Your task to perform on an android device: Open the stopwatch Image 0: 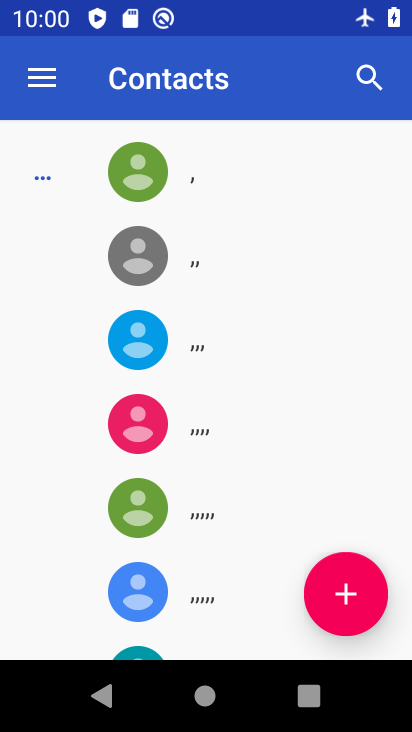
Step 0: press home button
Your task to perform on an android device: Open the stopwatch Image 1: 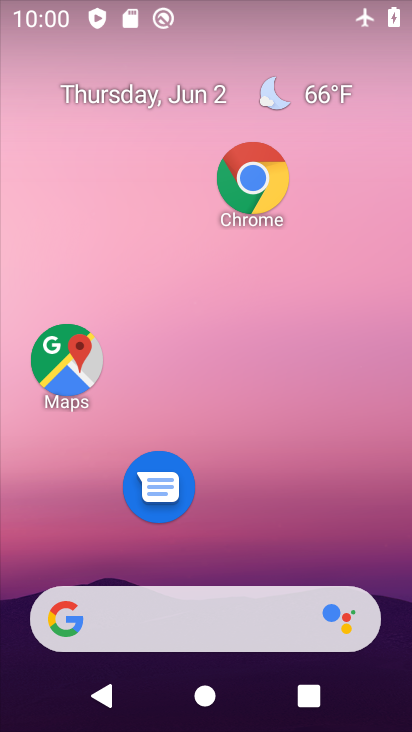
Step 1: drag from (235, 723) to (188, 93)
Your task to perform on an android device: Open the stopwatch Image 2: 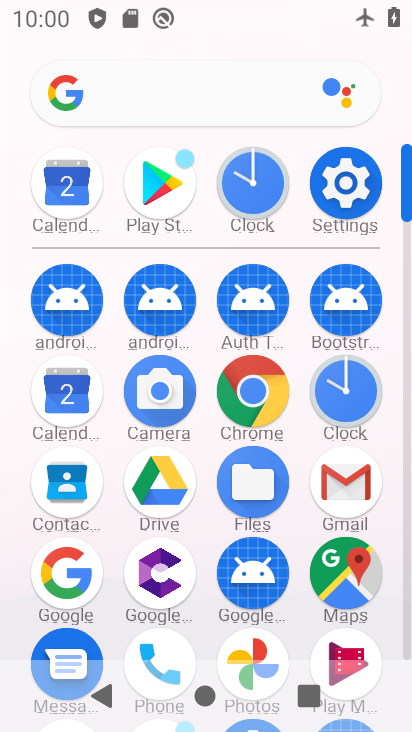
Step 2: click (346, 395)
Your task to perform on an android device: Open the stopwatch Image 3: 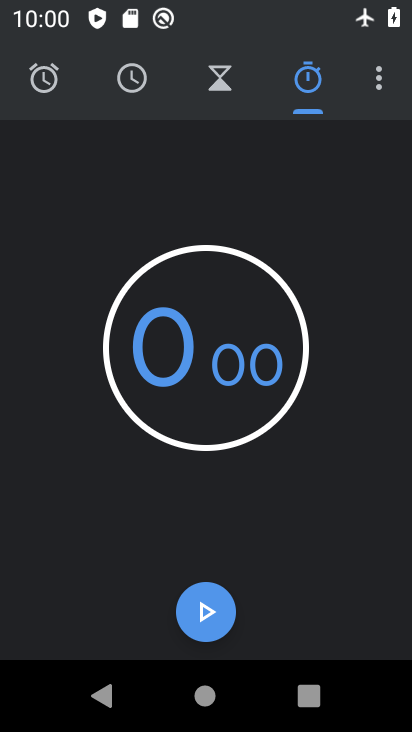
Step 3: task complete